Your task to perform on an android device: Open my contact list Image 0: 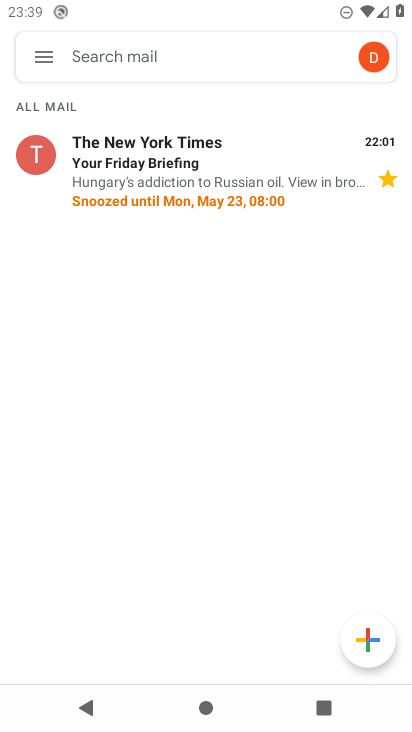
Step 0: press home button
Your task to perform on an android device: Open my contact list Image 1: 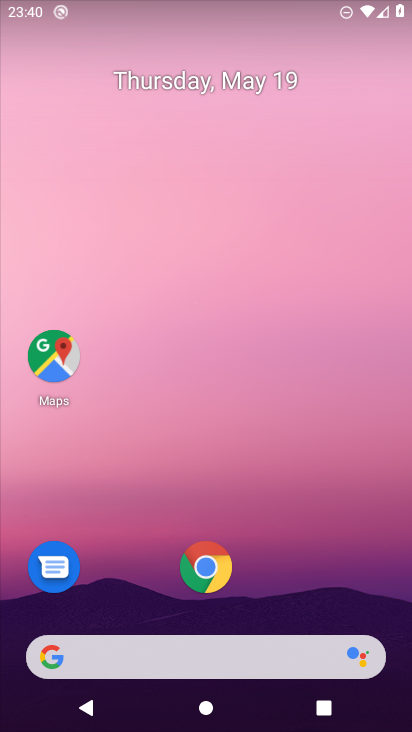
Step 1: drag from (259, 603) to (233, 46)
Your task to perform on an android device: Open my contact list Image 2: 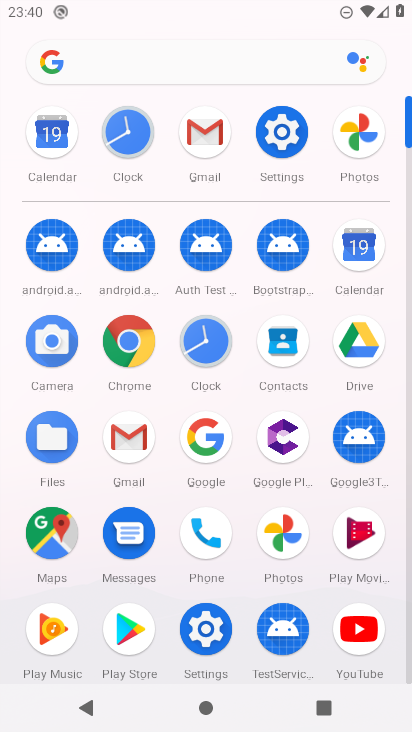
Step 2: click (283, 333)
Your task to perform on an android device: Open my contact list Image 3: 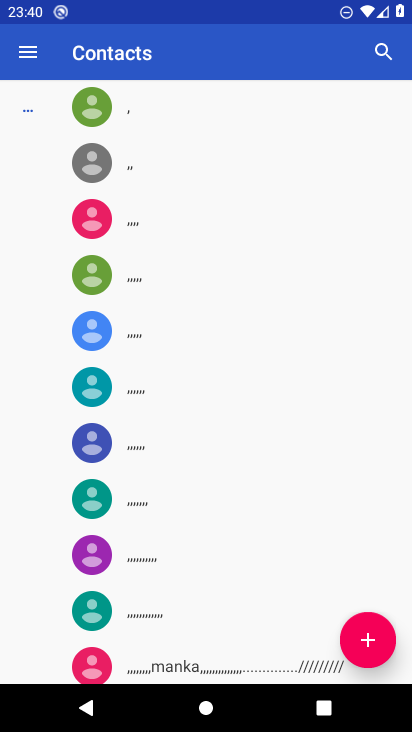
Step 3: task complete